Your task to perform on an android device: Go to Wikipedia Image 0: 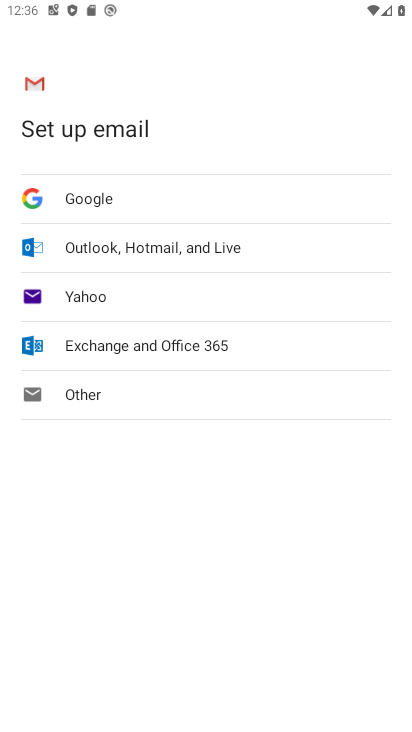
Step 0: press home button
Your task to perform on an android device: Go to Wikipedia Image 1: 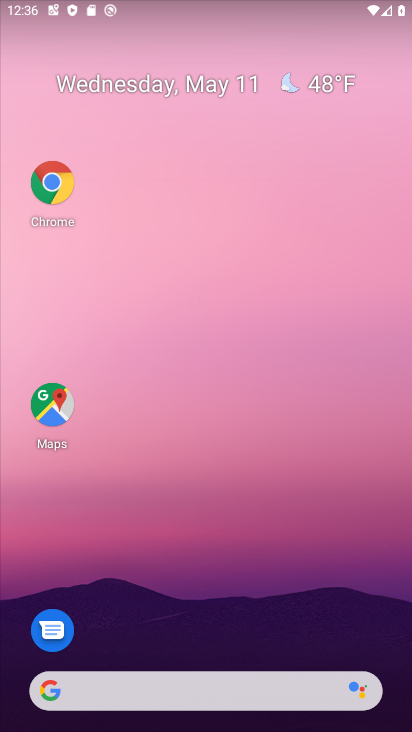
Step 1: drag from (211, 665) to (212, 1)
Your task to perform on an android device: Go to Wikipedia Image 2: 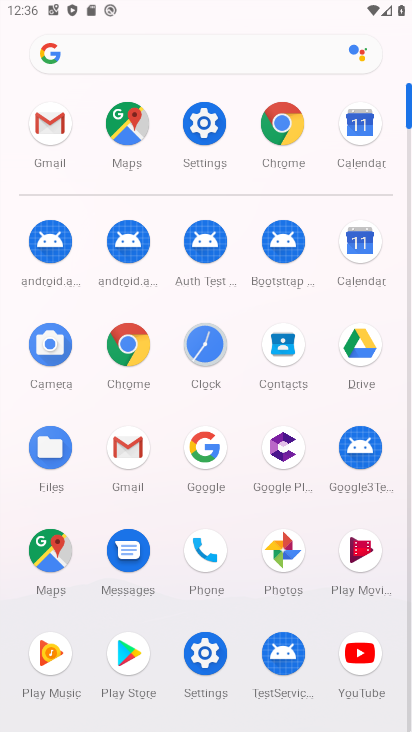
Step 2: click (126, 347)
Your task to perform on an android device: Go to Wikipedia Image 3: 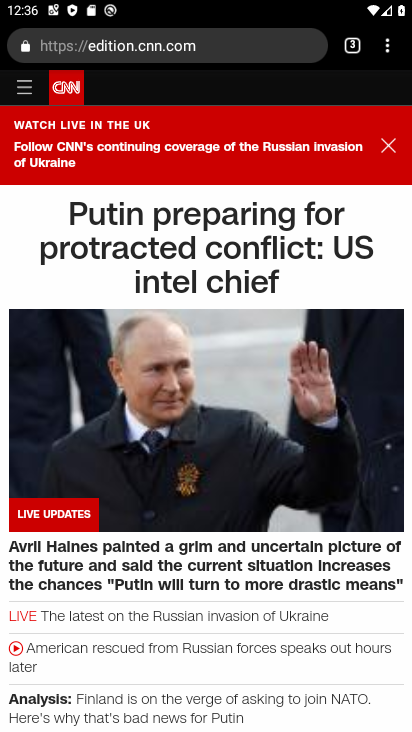
Step 3: click (342, 51)
Your task to perform on an android device: Go to Wikipedia Image 4: 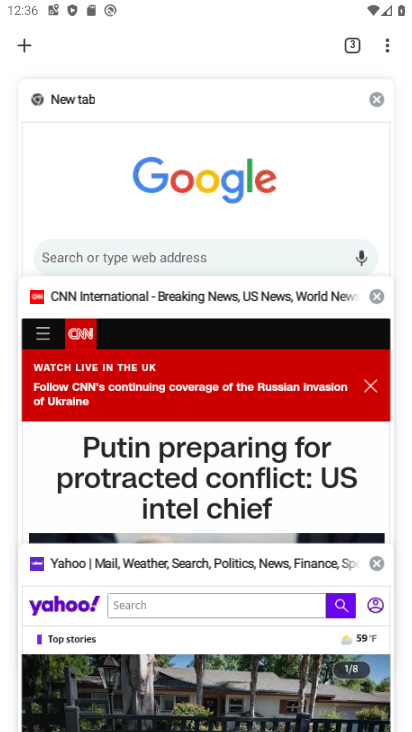
Step 4: click (28, 42)
Your task to perform on an android device: Go to Wikipedia Image 5: 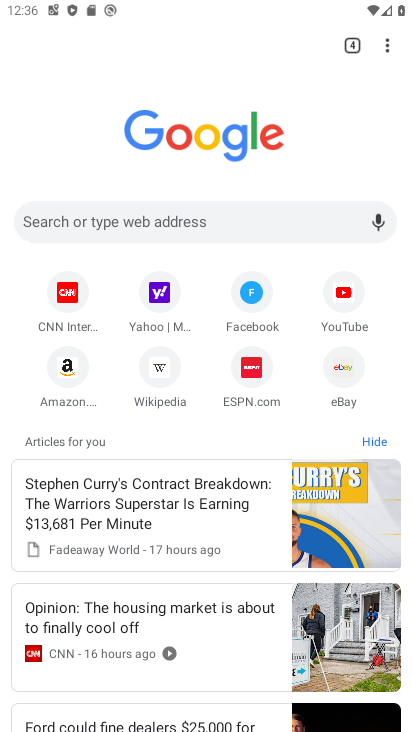
Step 5: click (161, 372)
Your task to perform on an android device: Go to Wikipedia Image 6: 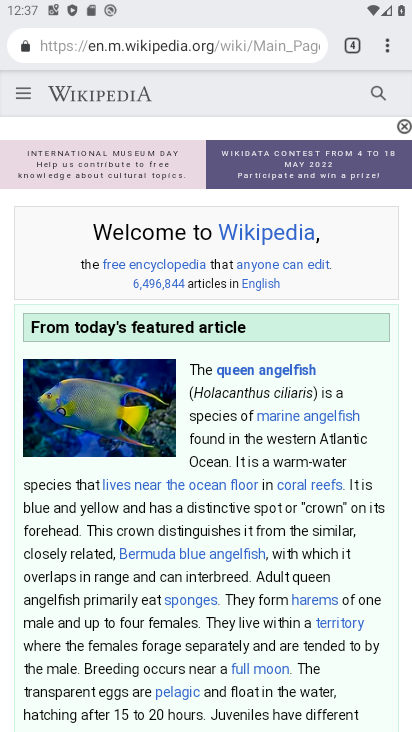
Step 6: task complete